Your task to perform on an android device: turn off picture-in-picture Image 0: 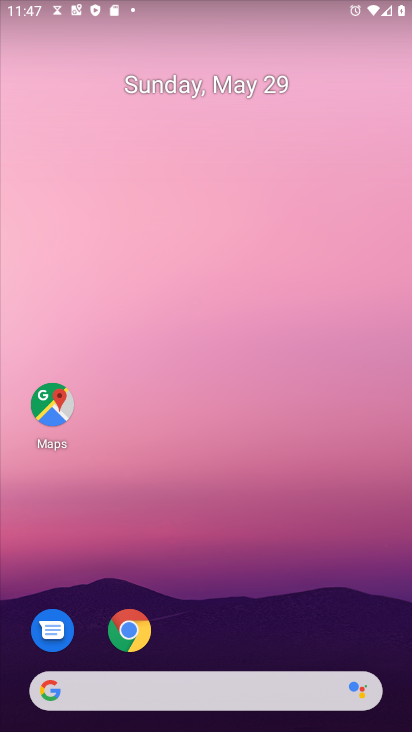
Step 0: drag from (202, 568) to (190, 0)
Your task to perform on an android device: turn off picture-in-picture Image 1: 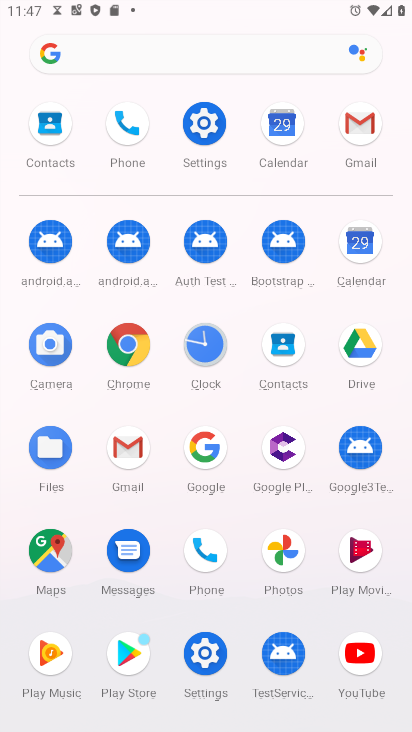
Step 1: click (273, 544)
Your task to perform on an android device: turn off picture-in-picture Image 2: 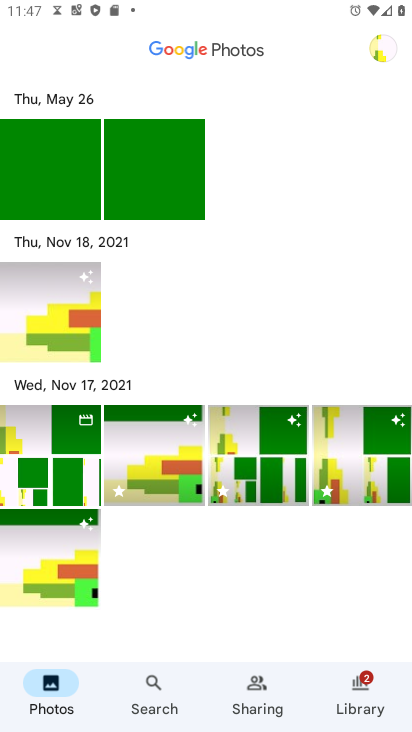
Step 2: click (391, 47)
Your task to perform on an android device: turn off picture-in-picture Image 3: 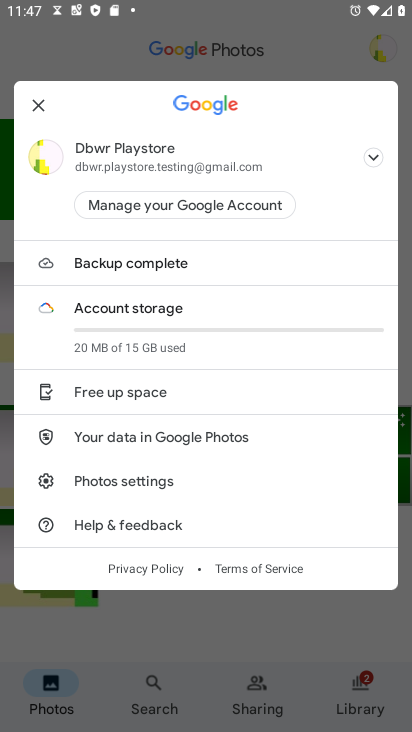
Step 3: click (104, 469)
Your task to perform on an android device: turn off picture-in-picture Image 4: 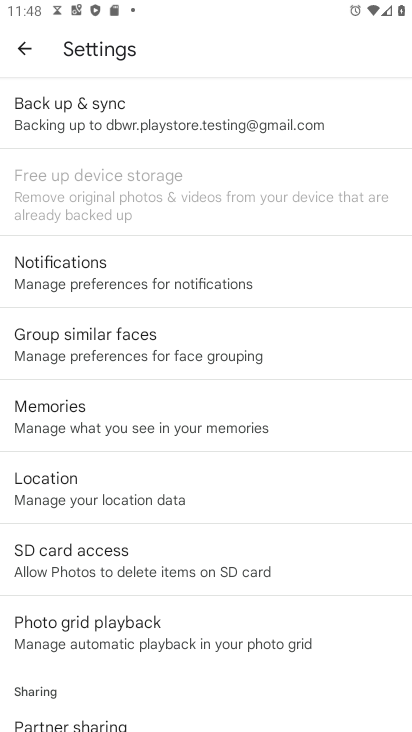
Step 4: drag from (110, 660) to (101, 300)
Your task to perform on an android device: turn off picture-in-picture Image 5: 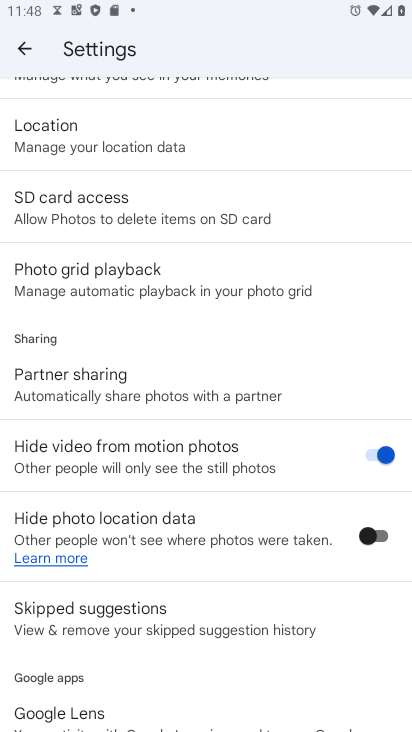
Step 5: drag from (151, 637) to (142, 191)
Your task to perform on an android device: turn off picture-in-picture Image 6: 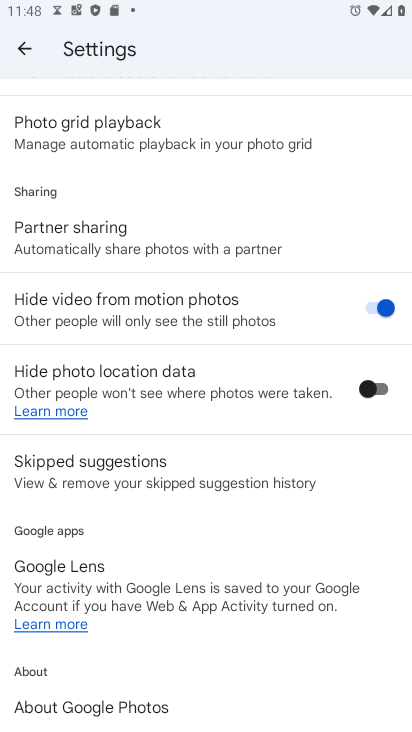
Step 6: drag from (109, 608) to (168, 149)
Your task to perform on an android device: turn off picture-in-picture Image 7: 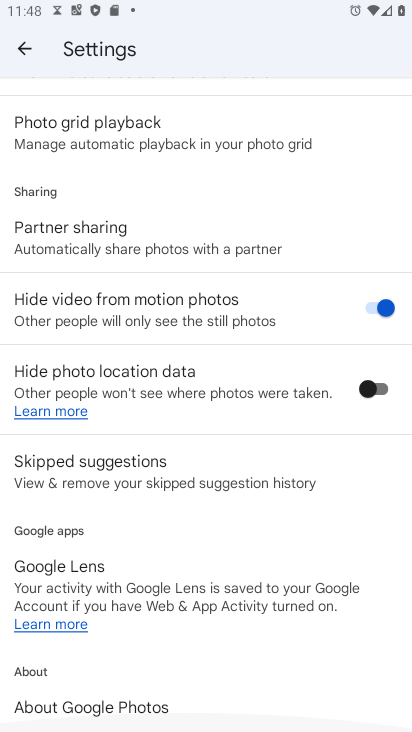
Step 7: drag from (233, 250) to (224, 593)
Your task to perform on an android device: turn off picture-in-picture Image 8: 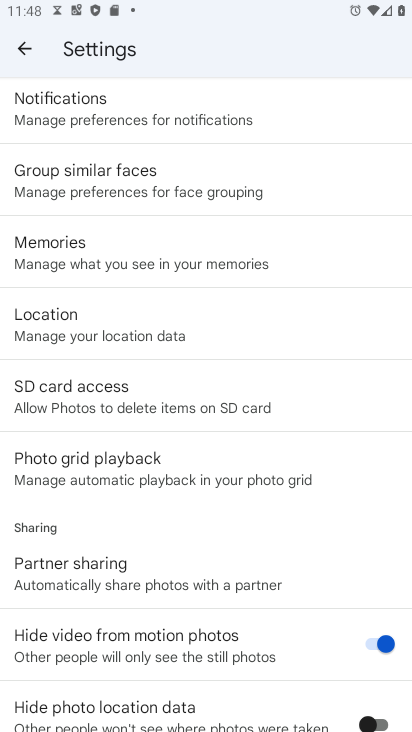
Step 8: drag from (191, 144) to (168, 454)
Your task to perform on an android device: turn off picture-in-picture Image 9: 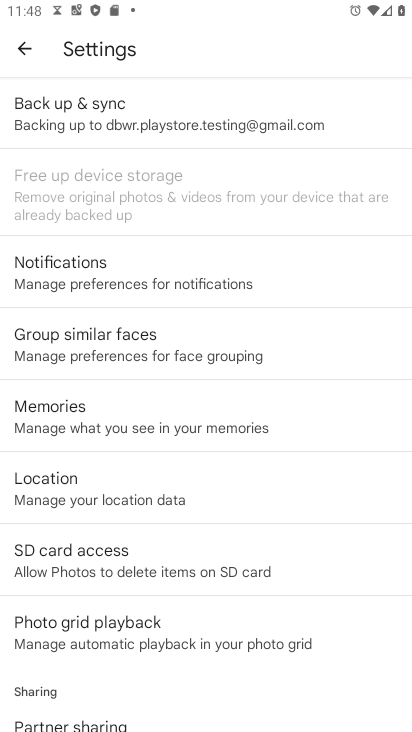
Step 9: drag from (174, 632) to (160, 174)
Your task to perform on an android device: turn off picture-in-picture Image 10: 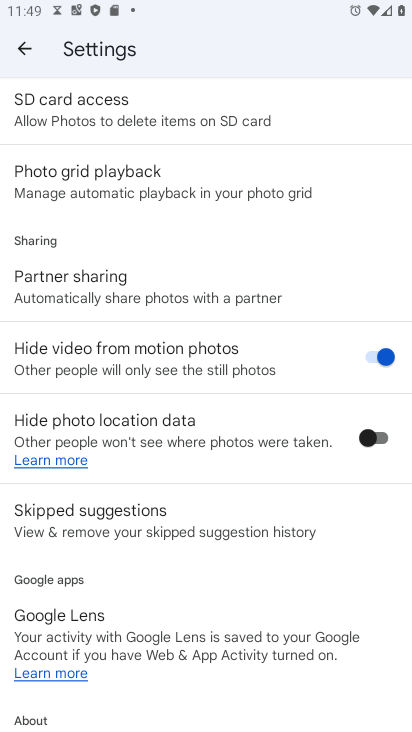
Step 10: drag from (127, 593) to (174, 211)
Your task to perform on an android device: turn off picture-in-picture Image 11: 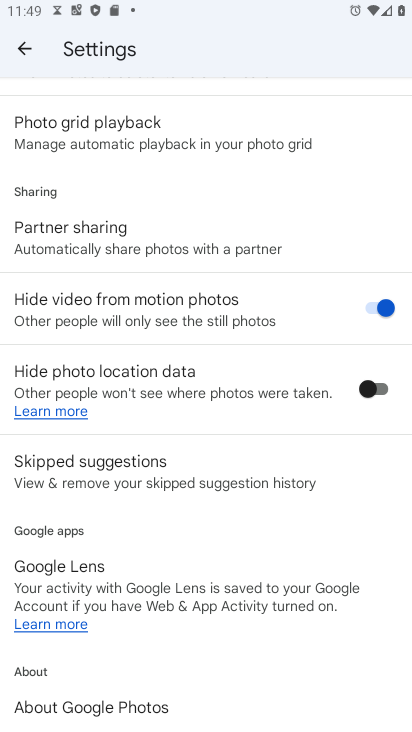
Step 11: click (109, 715)
Your task to perform on an android device: turn off picture-in-picture Image 12: 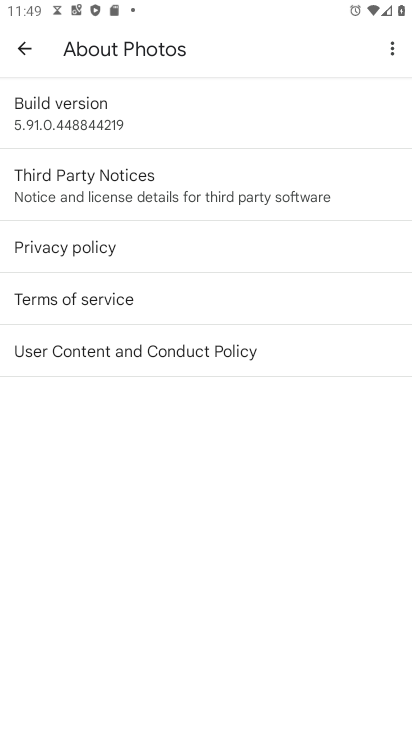
Step 12: task complete